Your task to perform on an android device: Go to ESPN.com Image 0: 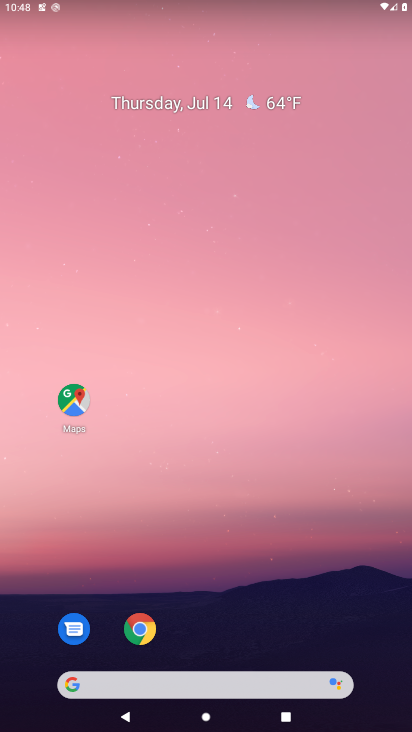
Step 0: click (139, 638)
Your task to perform on an android device: Go to ESPN.com Image 1: 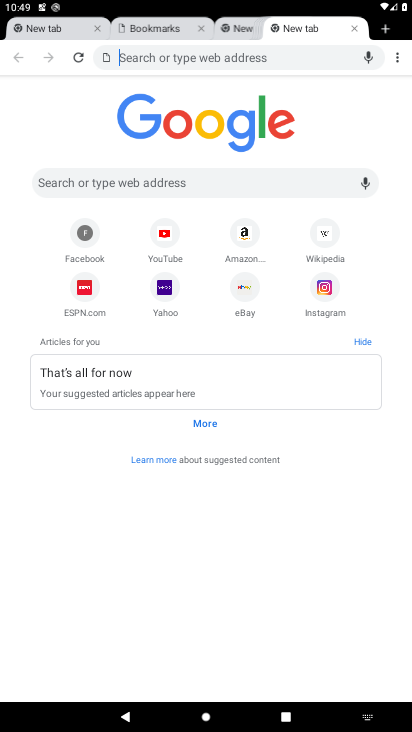
Step 1: click (91, 282)
Your task to perform on an android device: Go to ESPN.com Image 2: 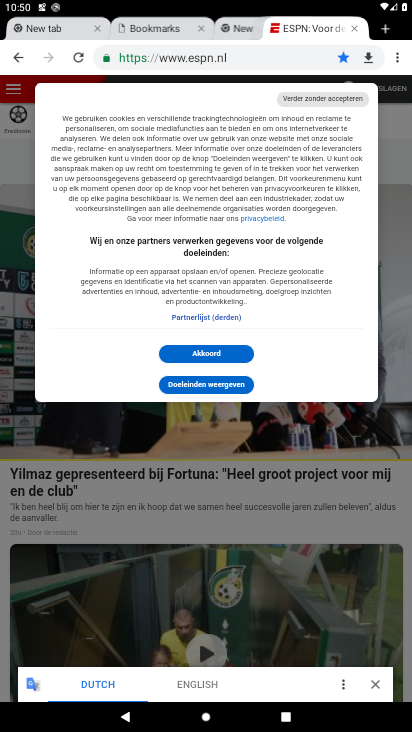
Step 2: task complete